Your task to perform on an android device: Turn off the flashlight Image 0: 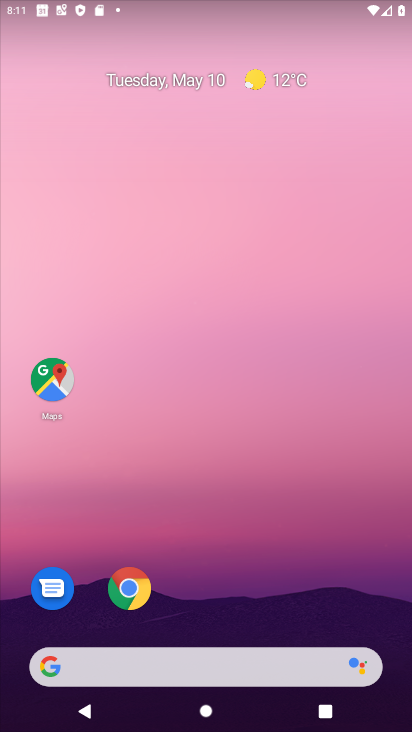
Step 0: click (127, 591)
Your task to perform on an android device: Turn off the flashlight Image 1: 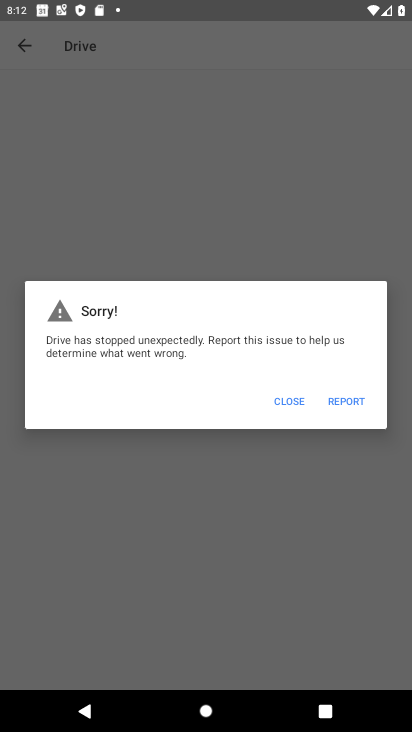
Step 1: click (278, 400)
Your task to perform on an android device: Turn off the flashlight Image 2: 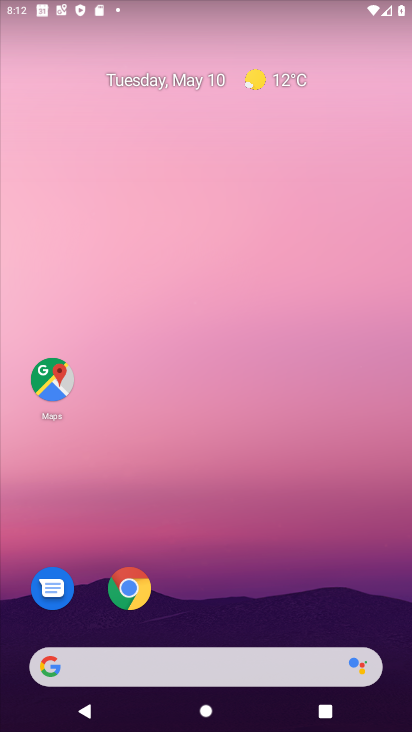
Step 2: task complete